Your task to perform on an android device: turn off translation in the chrome app Image 0: 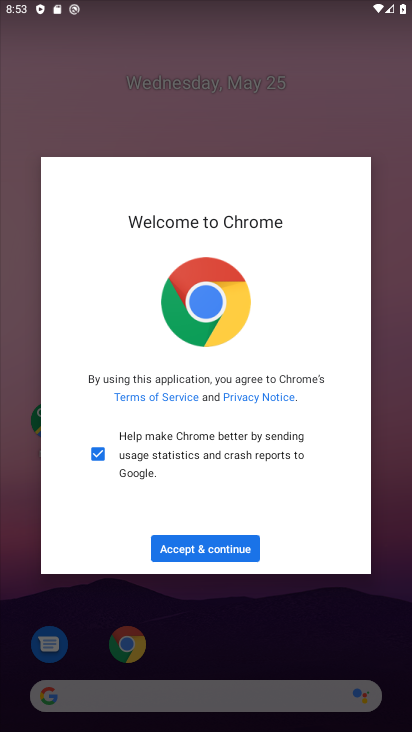
Step 0: click (209, 541)
Your task to perform on an android device: turn off translation in the chrome app Image 1: 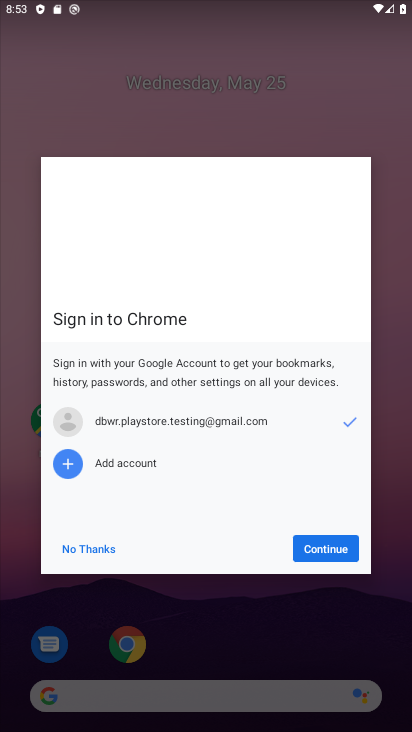
Step 1: click (94, 550)
Your task to perform on an android device: turn off translation in the chrome app Image 2: 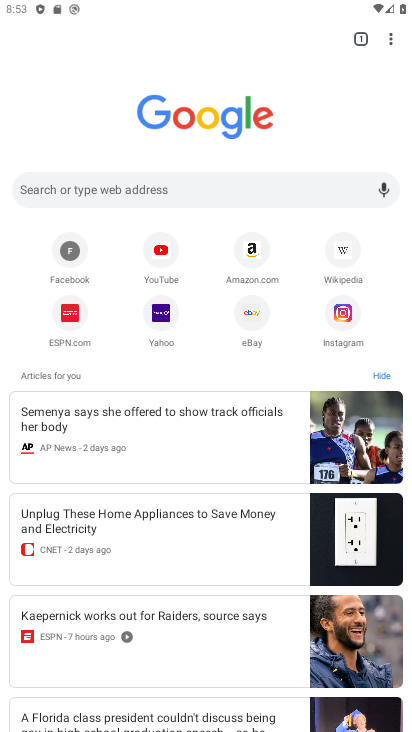
Step 2: click (390, 41)
Your task to perform on an android device: turn off translation in the chrome app Image 3: 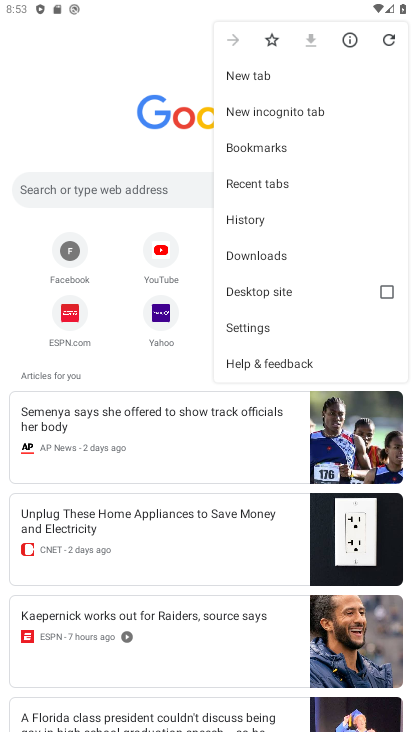
Step 3: click (247, 324)
Your task to perform on an android device: turn off translation in the chrome app Image 4: 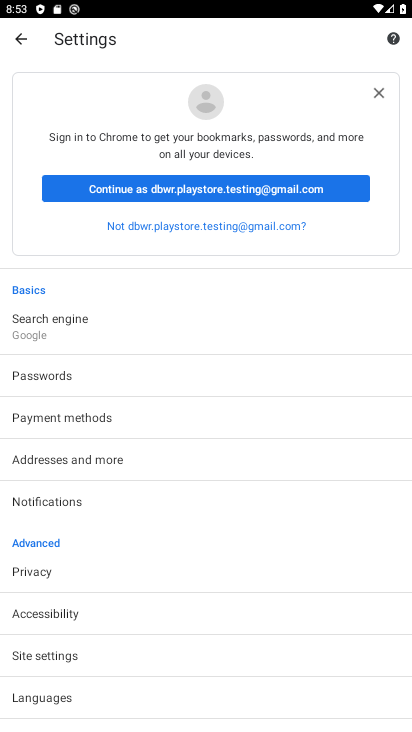
Step 4: drag from (143, 641) to (129, 514)
Your task to perform on an android device: turn off translation in the chrome app Image 5: 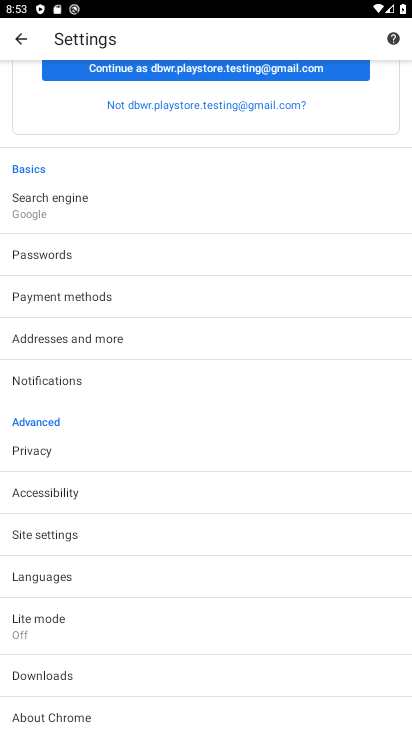
Step 5: click (43, 577)
Your task to perform on an android device: turn off translation in the chrome app Image 6: 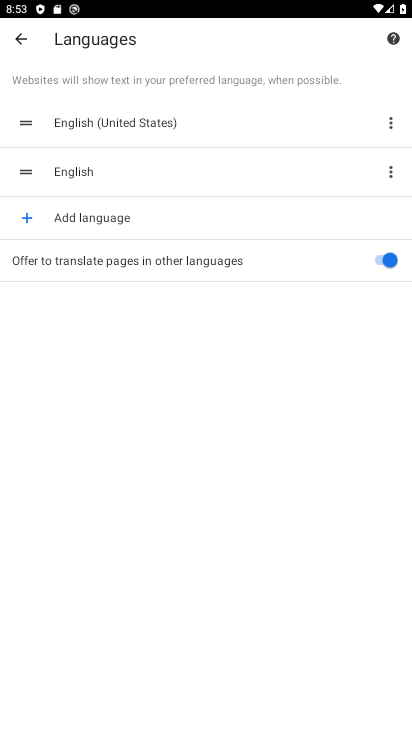
Step 6: click (393, 261)
Your task to perform on an android device: turn off translation in the chrome app Image 7: 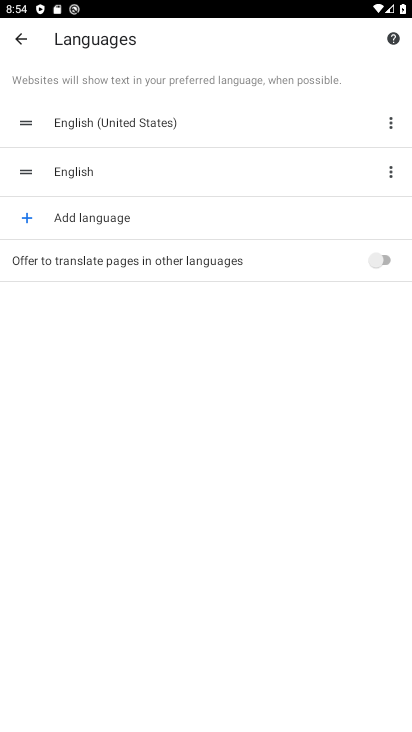
Step 7: task complete